Your task to perform on an android device: Open calendar and show me the third week of next month Image 0: 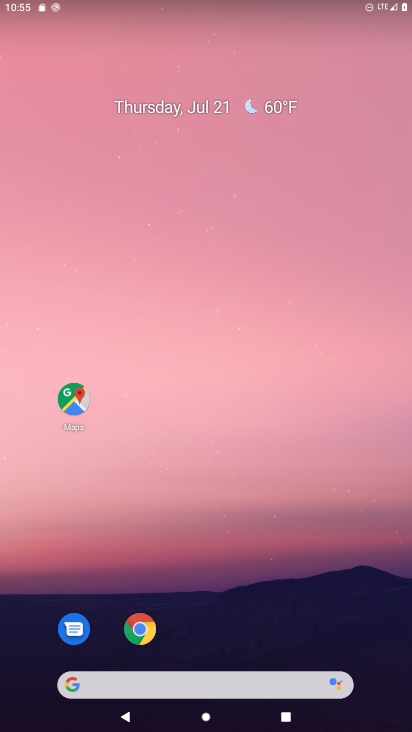
Step 0: press home button
Your task to perform on an android device: Open calendar and show me the third week of next month Image 1: 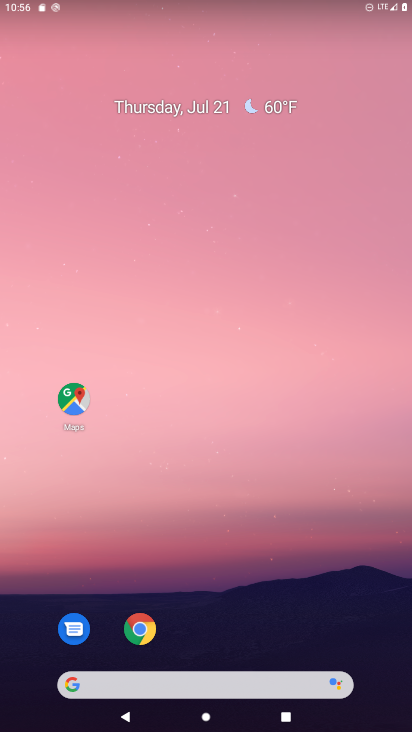
Step 1: drag from (313, 610) to (277, 1)
Your task to perform on an android device: Open calendar and show me the third week of next month Image 2: 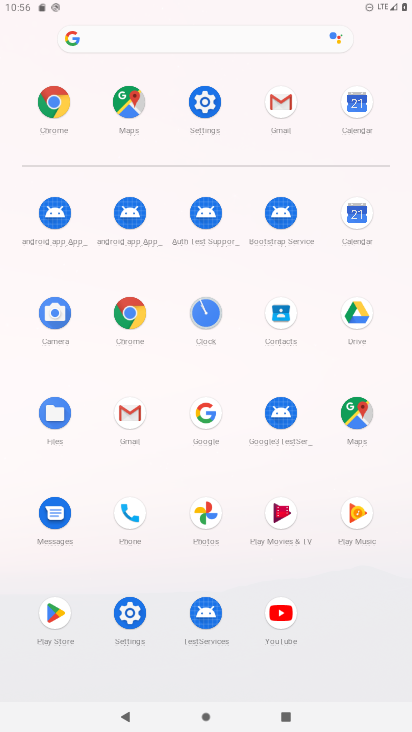
Step 2: click (350, 210)
Your task to perform on an android device: Open calendar and show me the third week of next month Image 3: 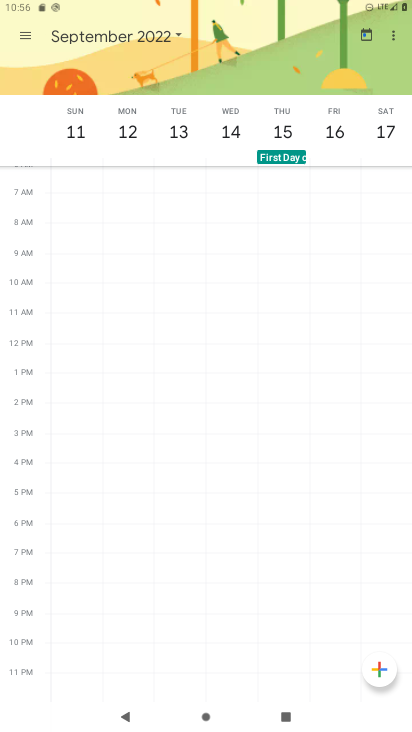
Step 3: click (18, 38)
Your task to perform on an android device: Open calendar and show me the third week of next month Image 4: 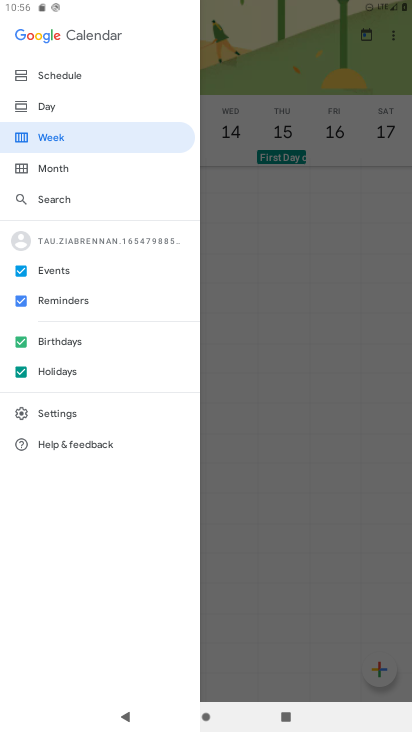
Step 4: click (57, 128)
Your task to perform on an android device: Open calendar and show me the third week of next month Image 5: 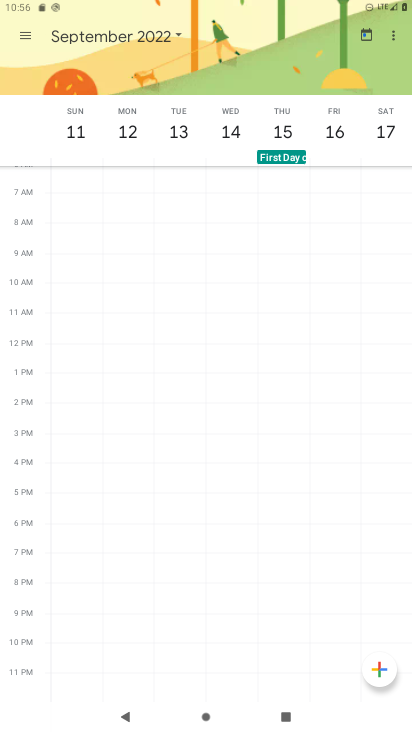
Step 5: task complete